Your task to perform on an android device: Check the weather Image 0: 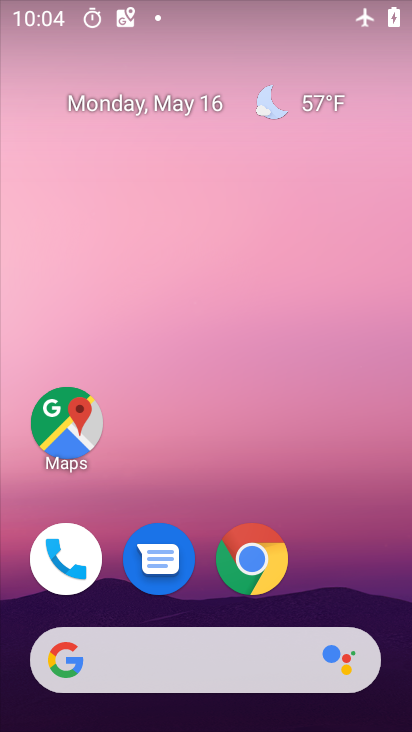
Step 0: click (331, 100)
Your task to perform on an android device: Check the weather Image 1: 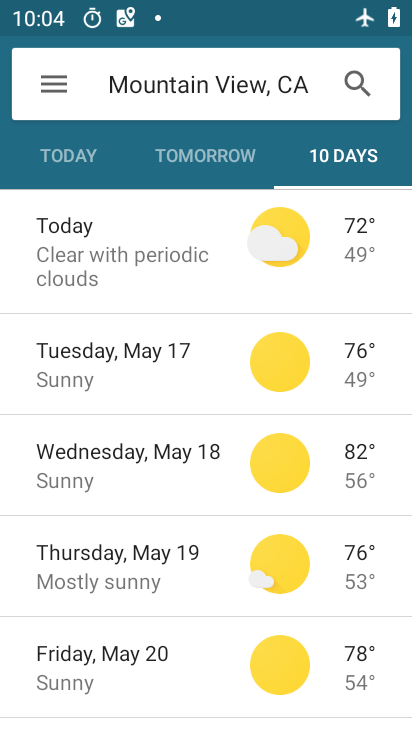
Step 1: click (52, 149)
Your task to perform on an android device: Check the weather Image 2: 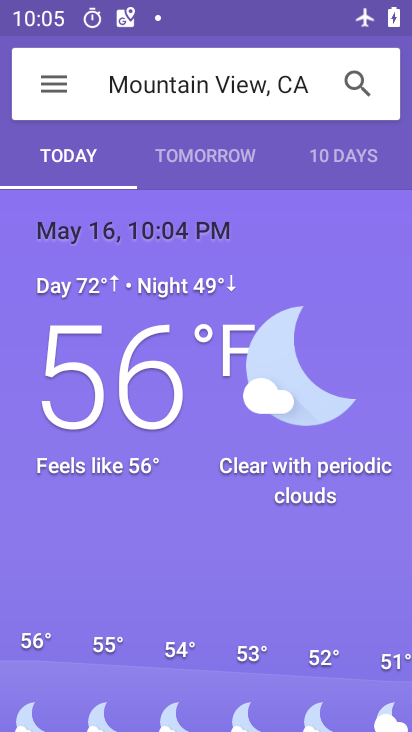
Step 2: task complete